Your task to perform on an android device: Open Yahoo.com Image 0: 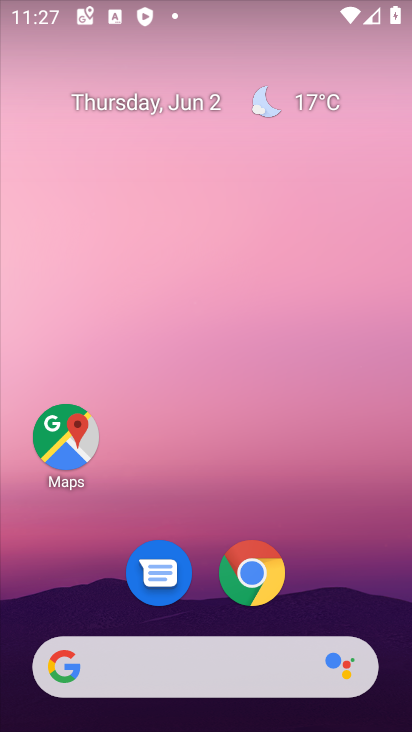
Step 0: drag from (335, 509) to (410, 83)
Your task to perform on an android device: Open Yahoo.com Image 1: 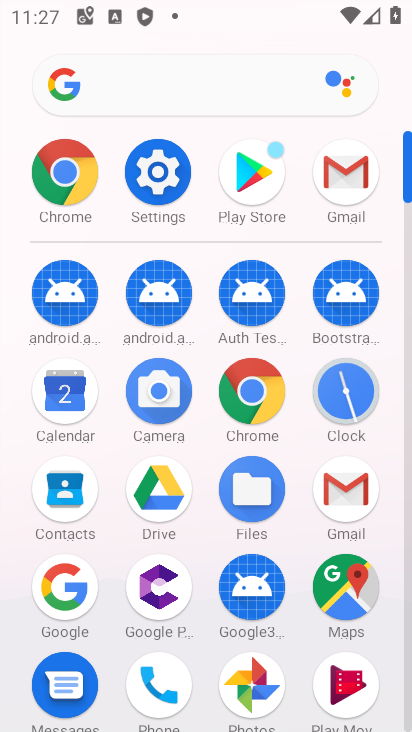
Step 1: click (55, 163)
Your task to perform on an android device: Open Yahoo.com Image 2: 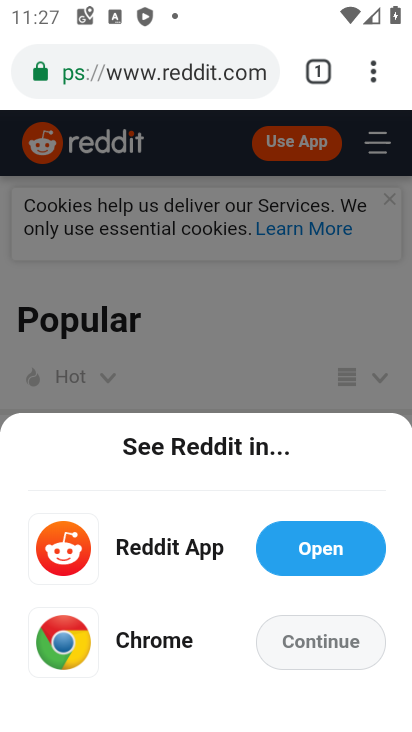
Step 2: click (152, 73)
Your task to perform on an android device: Open Yahoo.com Image 3: 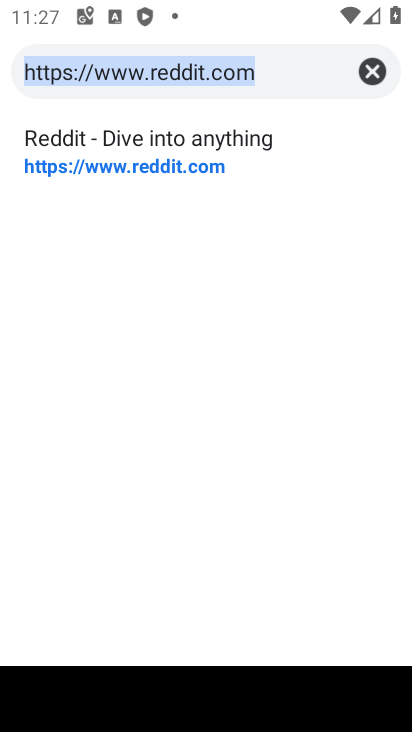
Step 3: click (370, 71)
Your task to perform on an android device: Open Yahoo.com Image 4: 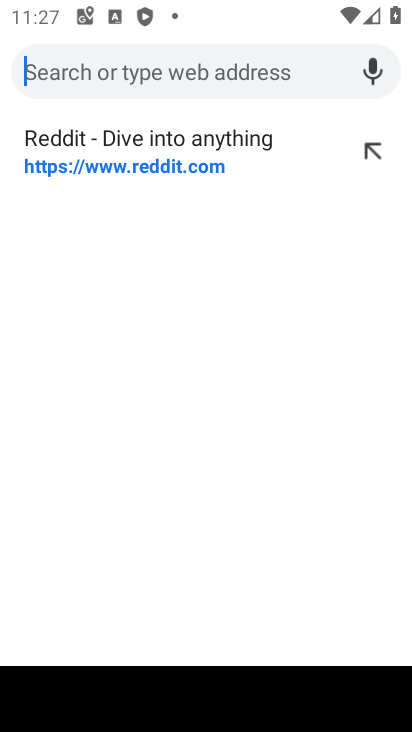
Step 4: type "yahoo"
Your task to perform on an android device: Open Yahoo.com Image 5: 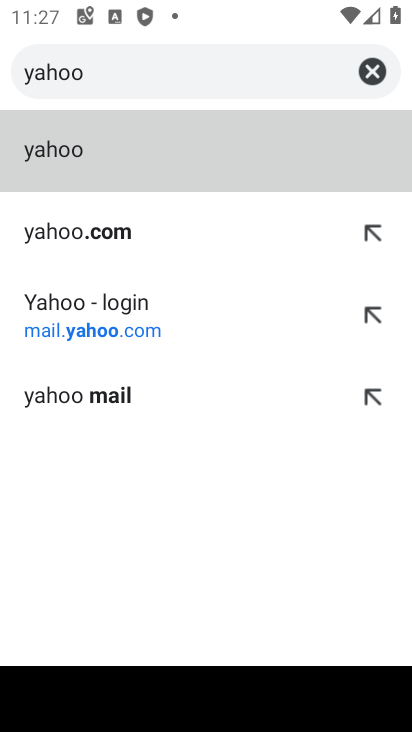
Step 5: click (87, 225)
Your task to perform on an android device: Open Yahoo.com Image 6: 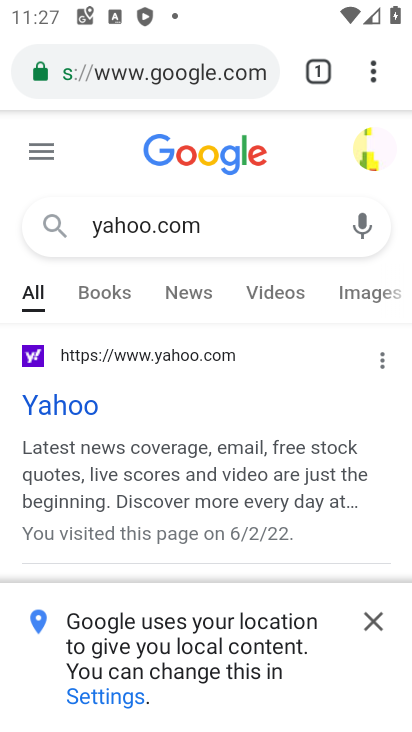
Step 6: click (62, 397)
Your task to perform on an android device: Open Yahoo.com Image 7: 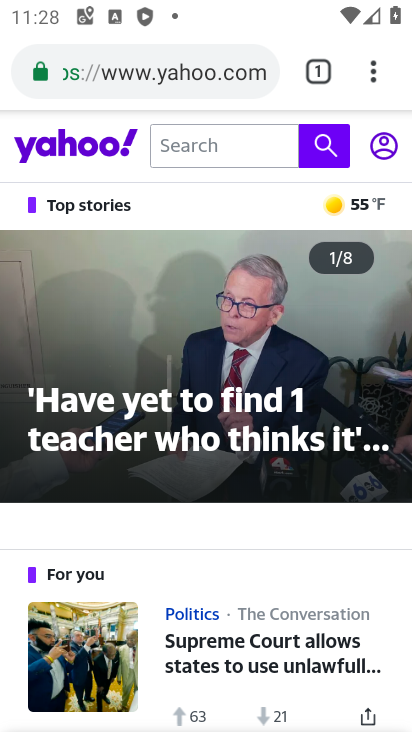
Step 7: task complete